Your task to perform on an android device: check out phone information Image 0: 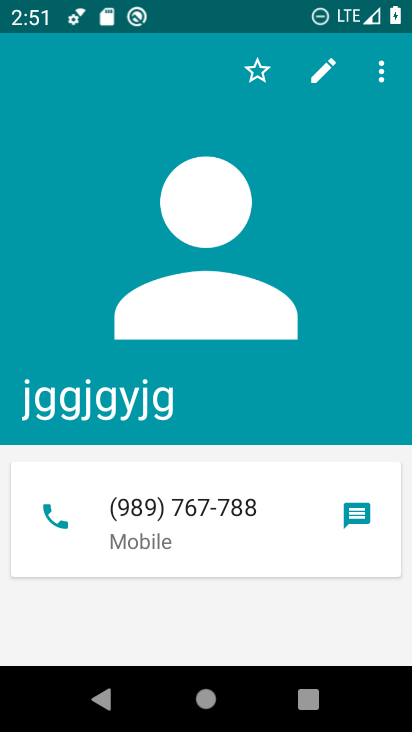
Step 0: press home button
Your task to perform on an android device: check out phone information Image 1: 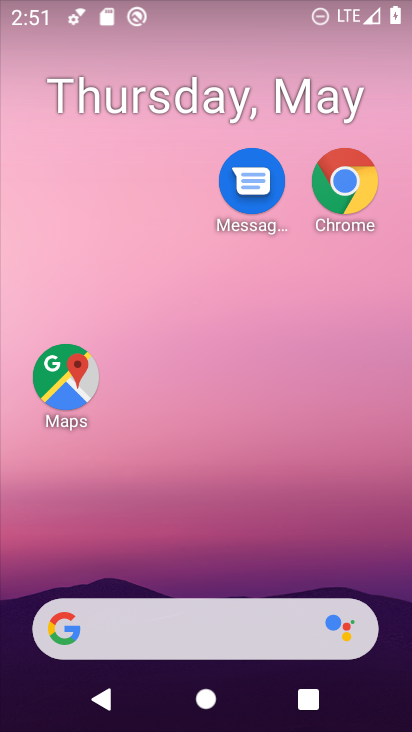
Step 1: drag from (275, 602) to (318, 5)
Your task to perform on an android device: check out phone information Image 2: 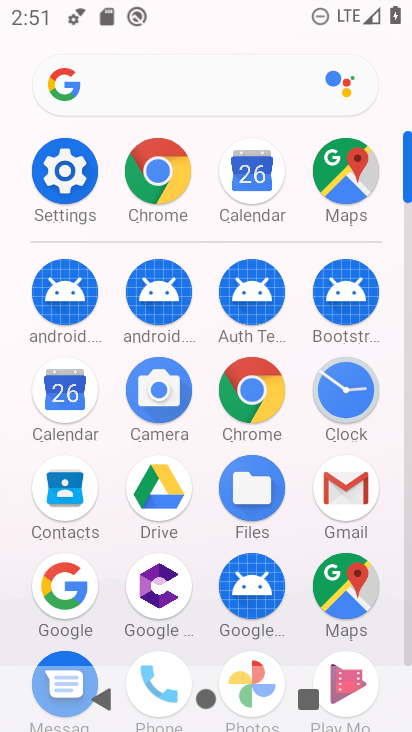
Step 2: drag from (295, 628) to (332, 97)
Your task to perform on an android device: check out phone information Image 3: 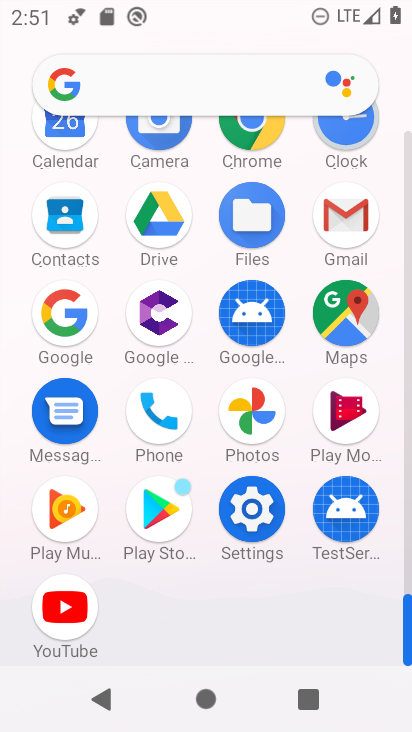
Step 3: click (247, 514)
Your task to perform on an android device: check out phone information Image 4: 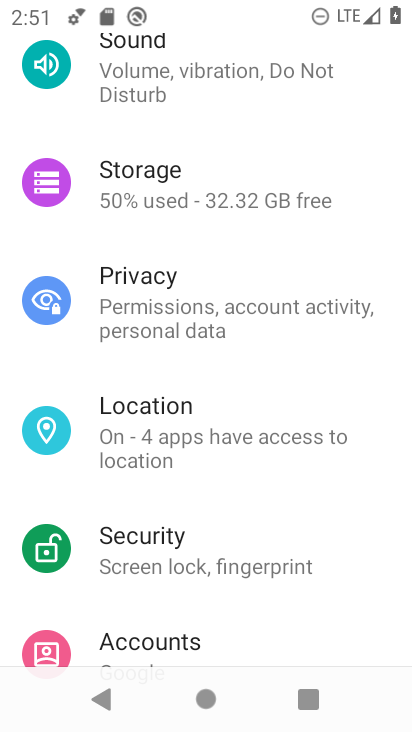
Step 4: drag from (225, 607) to (289, 78)
Your task to perform on an android device: check out phone information Image 5: 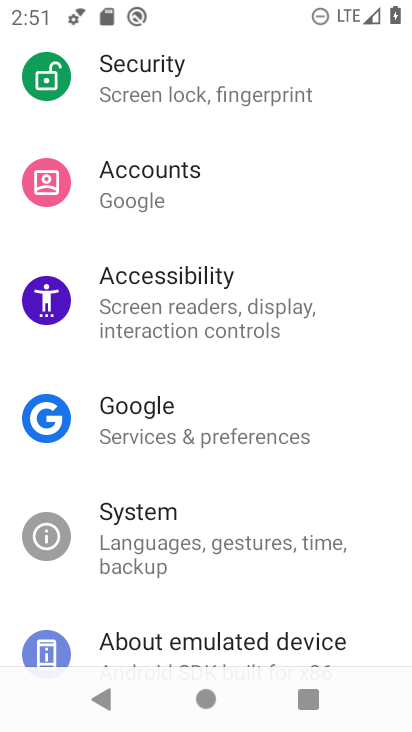
Step 5: drag from (279, 605) to (303, 367)
Your task to perform on an android device: check out phone information Image 6: 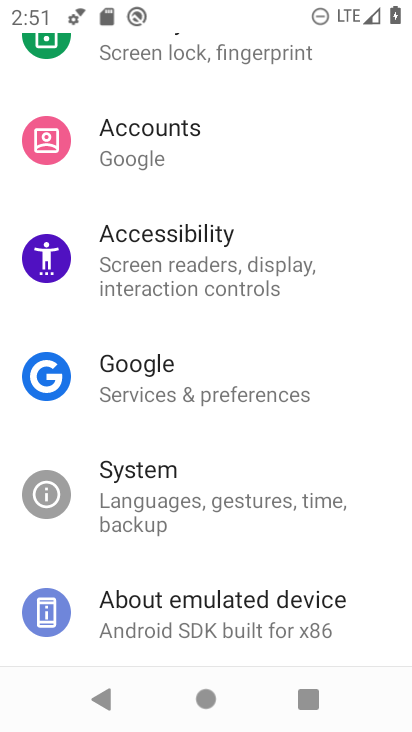
Step 6: click (235, 619)
Your task to perform on an android device: check out phone information Image 7: 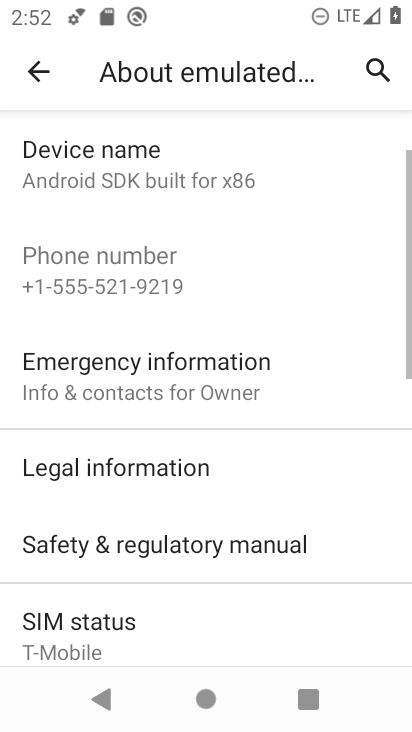
Step 7: task complete